Your task to perform on an android device: Open network settings Image 0: 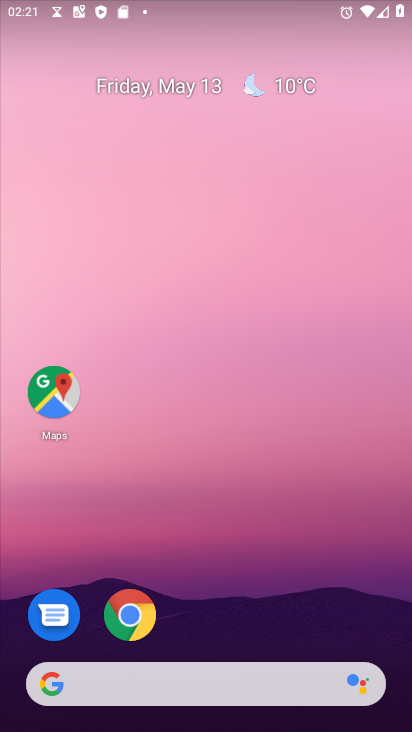
Step 0: click (136, 617)
Your task to perform on an android device: Open network settings Image 1: 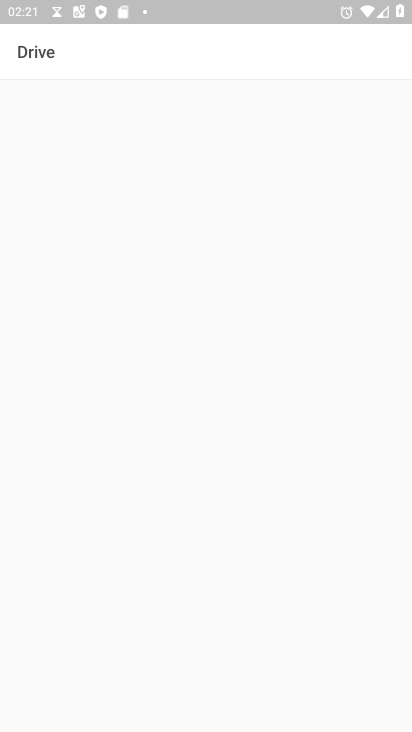
Step 1: press home button
Your task to perform on an android device: Open network settings Image 2: 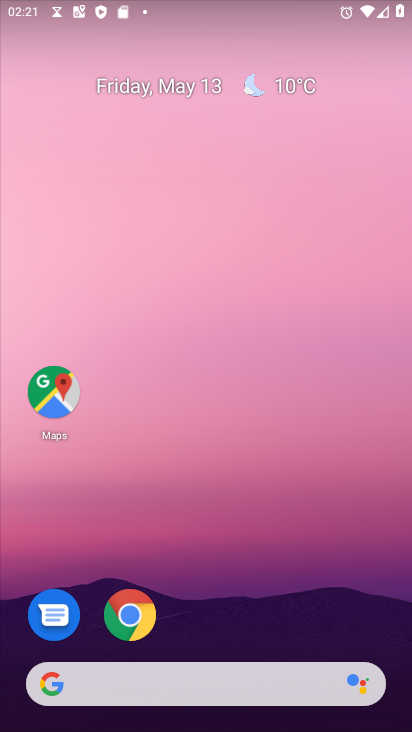
Step 2: drag from (224, 602) to (58, 101)
Your task to perform on an android device: Open network settings Image 3: 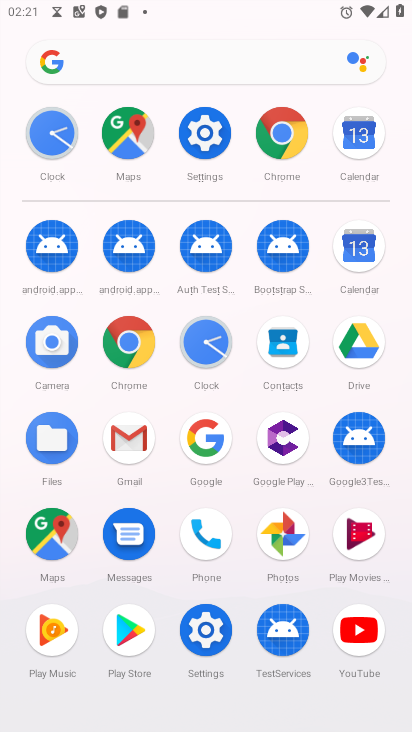
Step 3: click (196, 150)
Your task to perform on an android device: Open network settings Image 4: 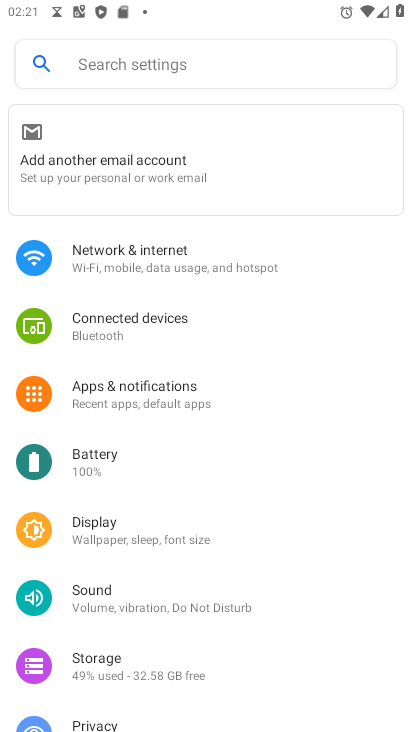
Step 4: click (169, 266)
Your task to perform on an android device: Open network settings Image 5: 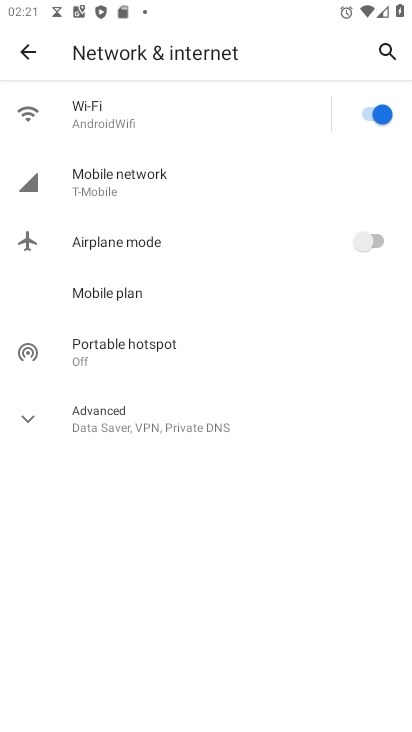
Step 5: click (130, 172)
Your task to perform on an android device: Open network settings Image 6: 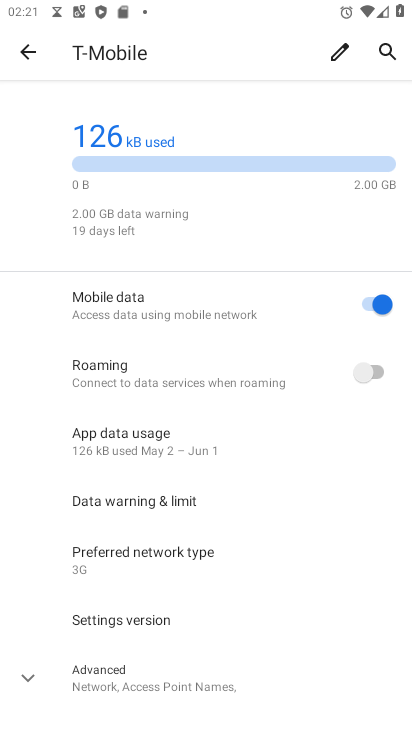
Step 6: click (125, 674)
Your task to perform on an android device: Open network settings Image 7: 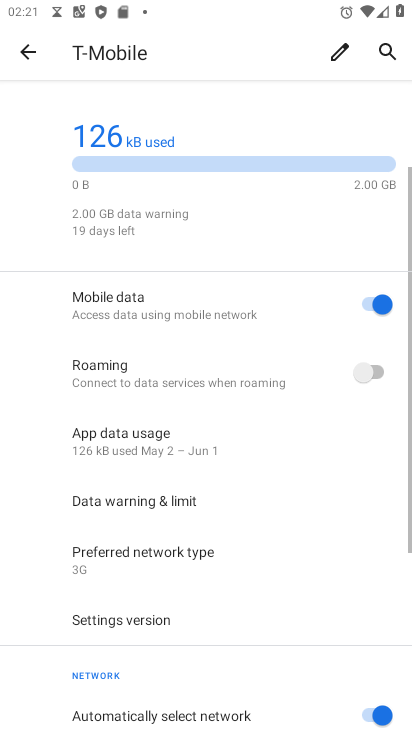
Step 7: task complete